Your task to perform on an android device: Open Youtube and go to the subscriptions tab Image 0: 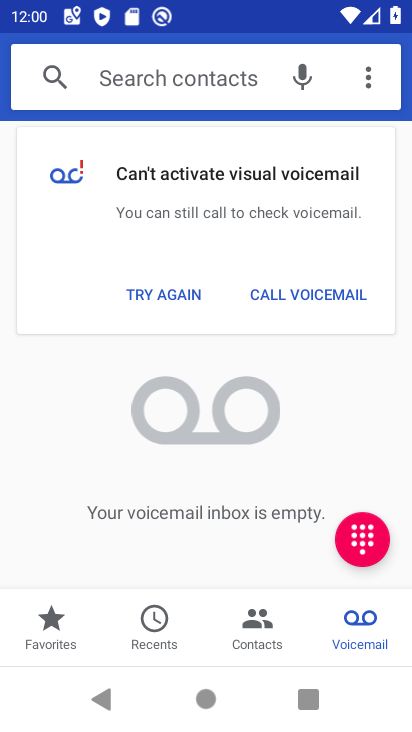
Step 0: press home button
Your task to perform on an android device: Open Youtube and go to the subscriptions tab Image 1: 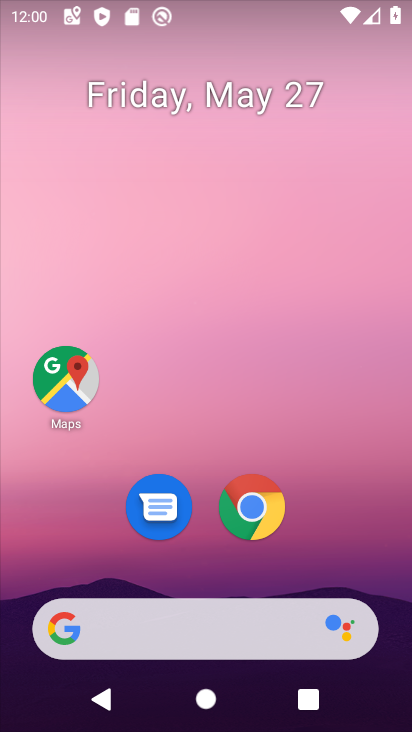
Step 1: drag from (334, 471) to (313, 140)
Your task to perform on an android device: Open Youtube and go to the subscriptions tab Image 2: 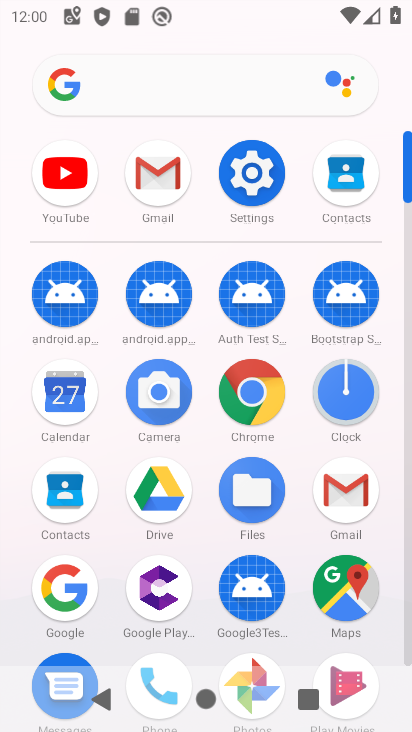
Step 2: click (45, 168)
Your task to perform on an android device: Open Youtube and go to the subscriptions tab Image 3: 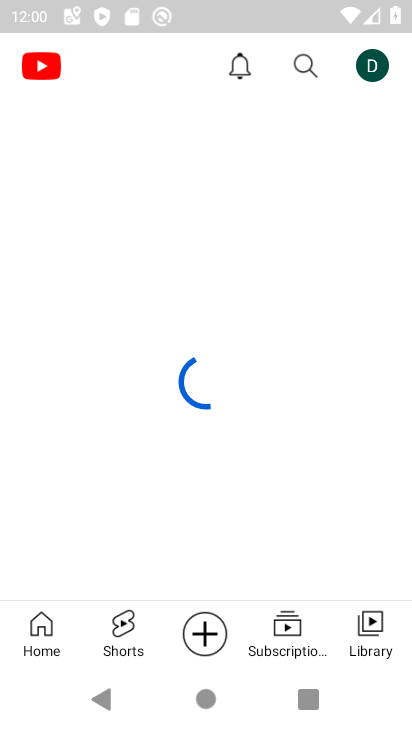
Step 3: click (304, 638)
Your task to perform on an android device: Open Youtube and go to the subscriptions tab Image 4: 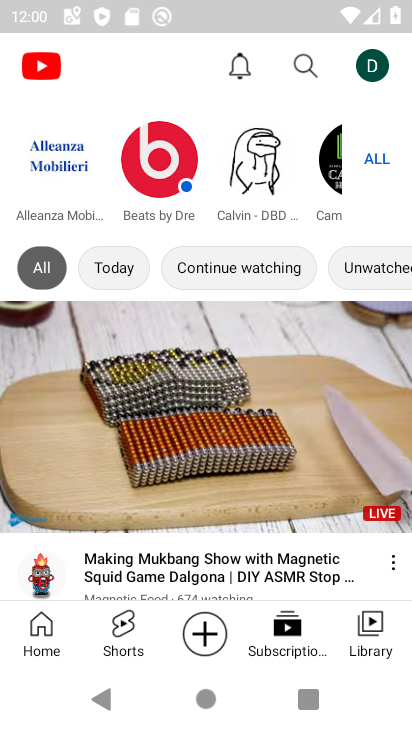
Step 4: task complete